Your task to perform on an android device: Search for sony triple a on newegg.com, select the first entry, and add it to the cart. Image 0: 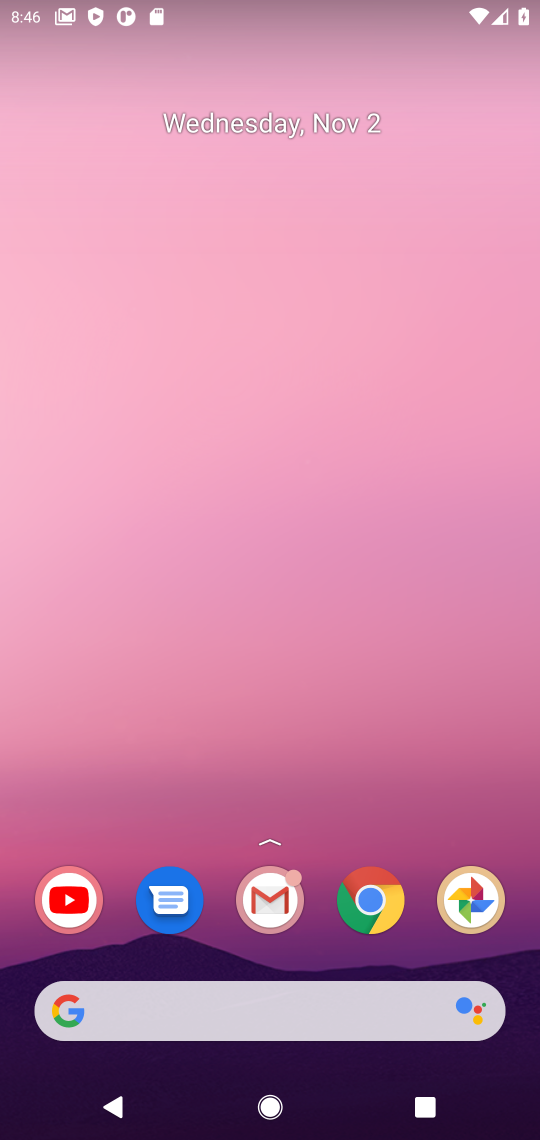
Step 0: click (379, 914)
Your task to perform on an android device: Search for sony triple a on newegg.com, select the first entry, and add it to the cart. Image 1: 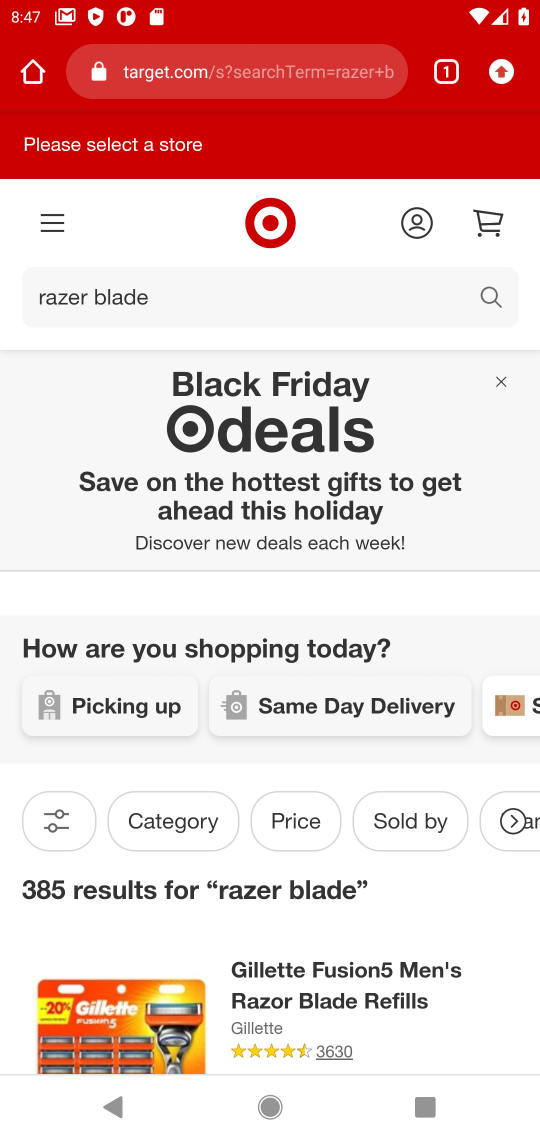
Step 1: click (224, 70)
Your task to perform on an android device: Search for sony triple a on newegg.com, select the first entry, and add it to the cart. Image 2: 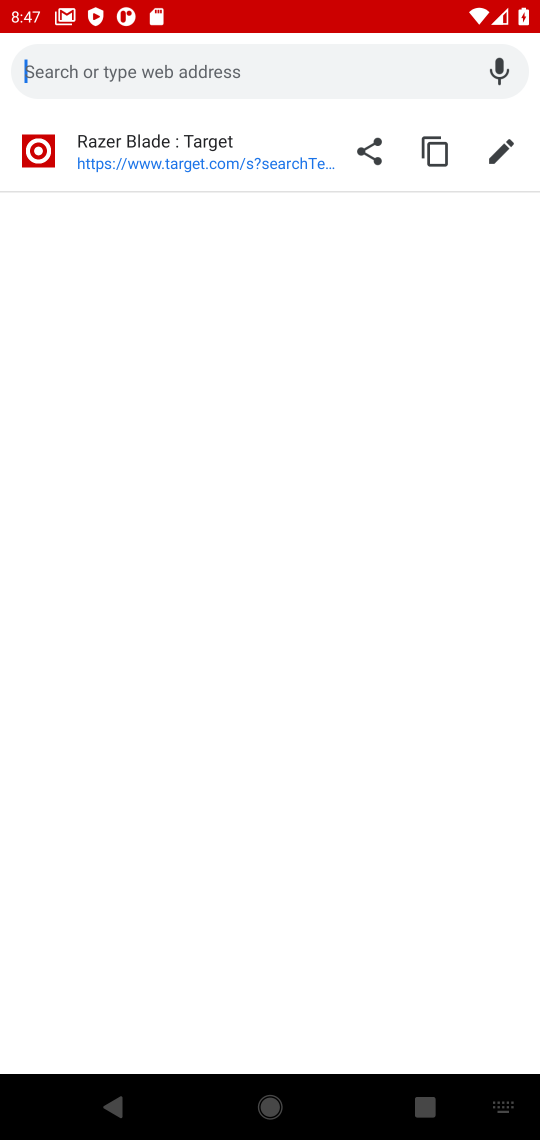
Step 2: type "newegg"
Your task to perform on an android device: Search for sony triple a on newegg.com, select the first entry, and add it to the cart. Image 3: 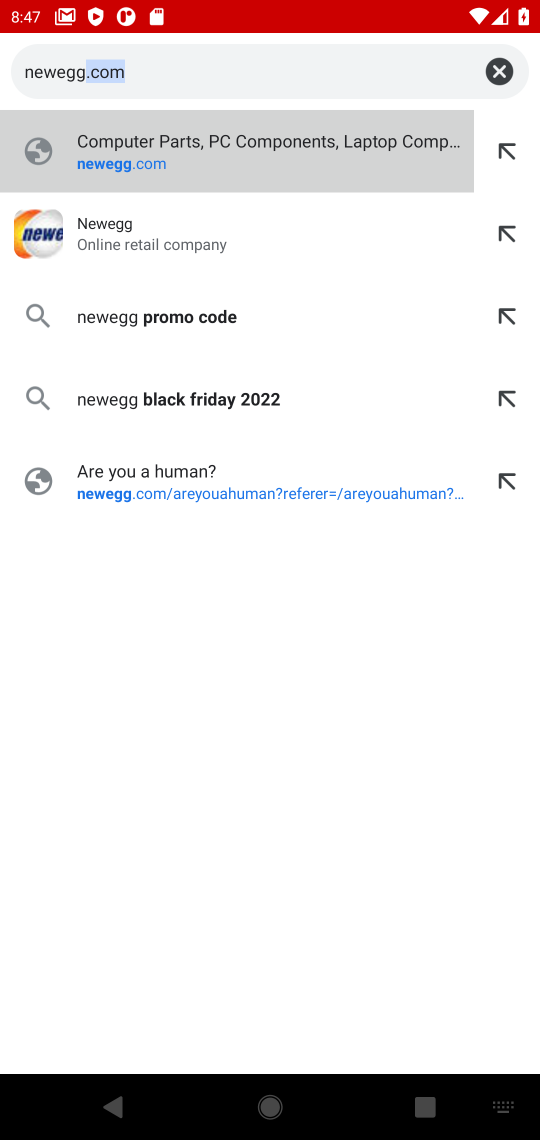
Step 3: click (38, 251)
Your task to perform on an android device: Search for sony triple a on newegg.com, select the first entry, and add it to the cart. Image 4: 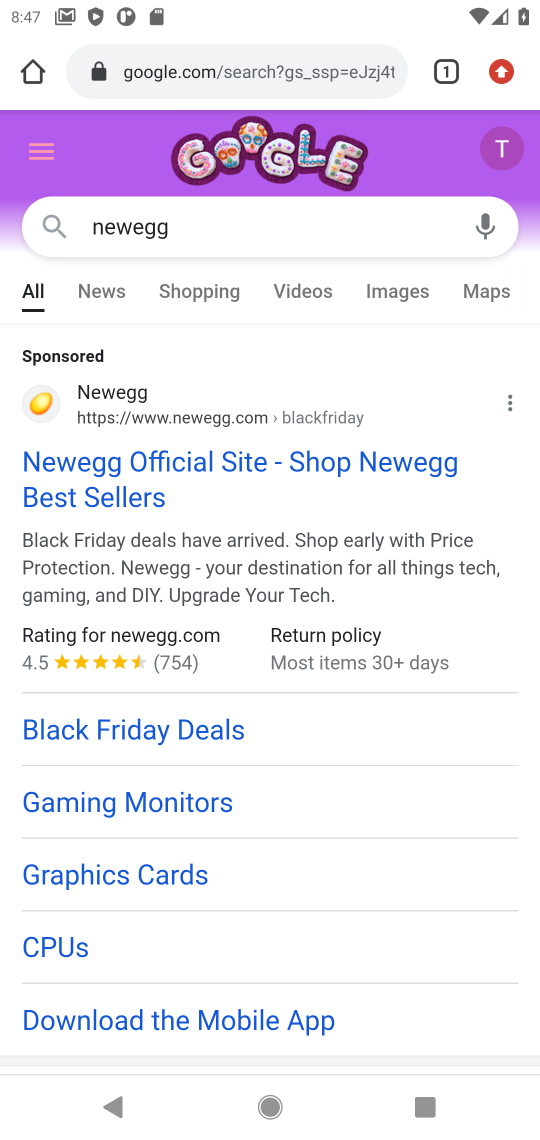
Step 4: click (60, 484)
Your task to perform on an android device: Search for sony triple a on newegg.com, select the first entry, and add it to the cart. Image 5: 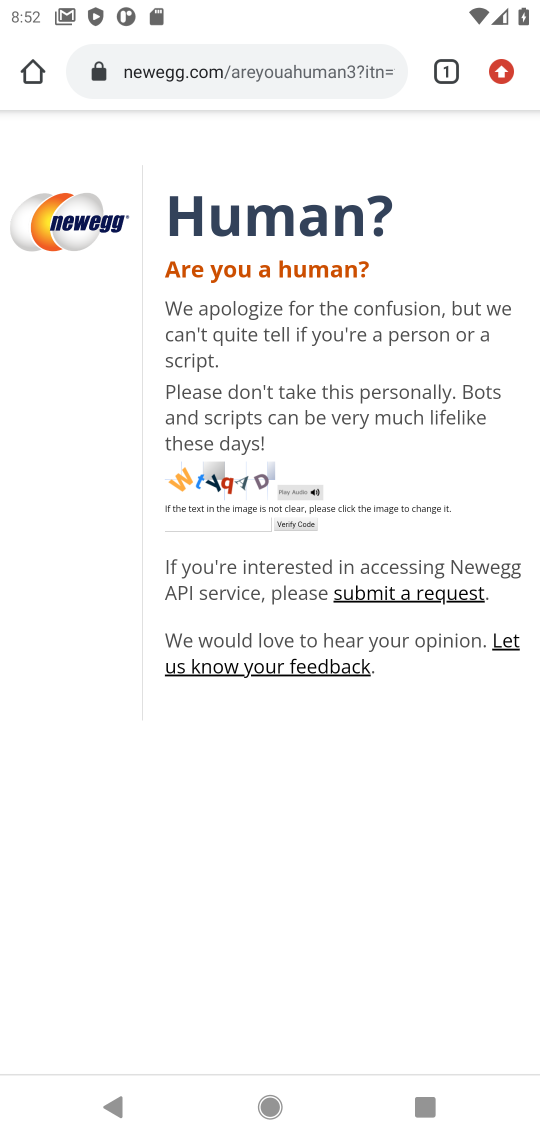
Step 5: task complete